Your task to perform on an android device: Is it going to rain this weekend? Image 0: 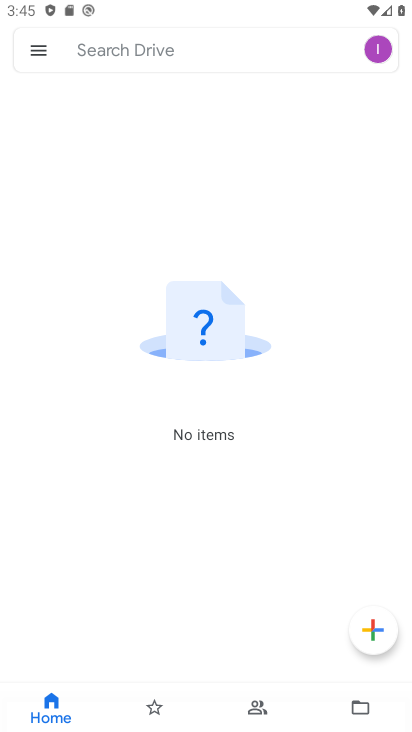
Step 0: press home button
Your task to perform on an android device: Is it going to rain this weekend? Image 1: 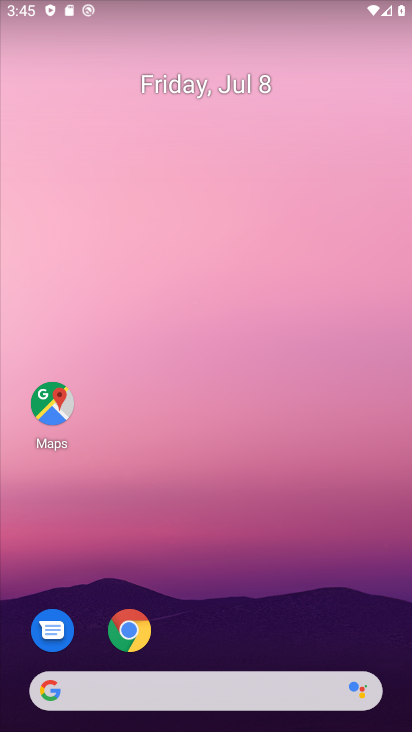
Step 1: drag from (76, 585) to (174, 204)
Your task to perform on an android device: Is it going to rain this weekend? Image 2: 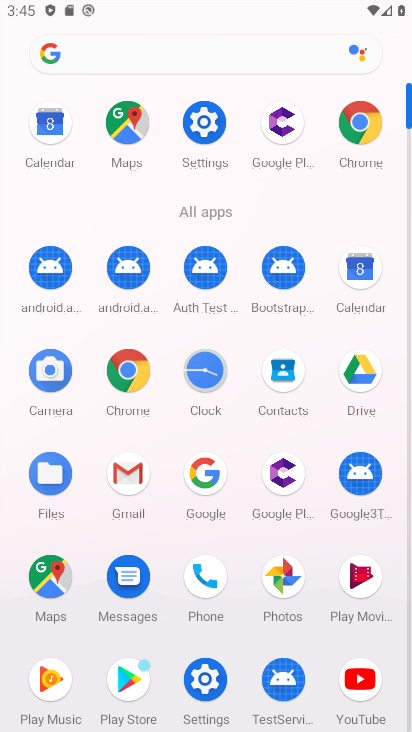
Step 2: click (99, 56)
Your task to perform on an android device: Is it going to rain this weekend? Image 3: 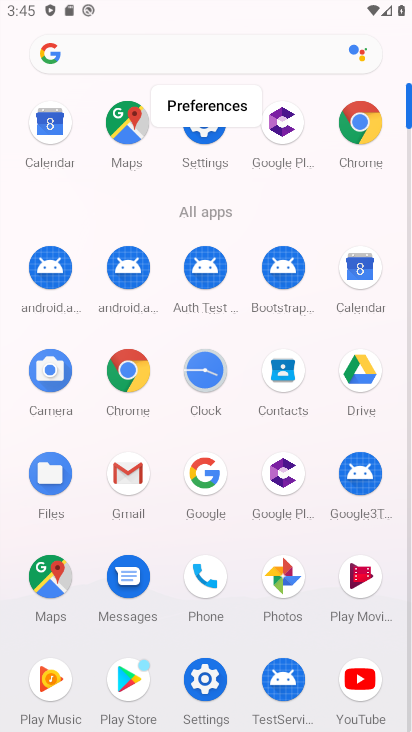
Step 3: click (109, 46)
Your task to perform on an android device: Is it going to rain this weekend? Image 4: 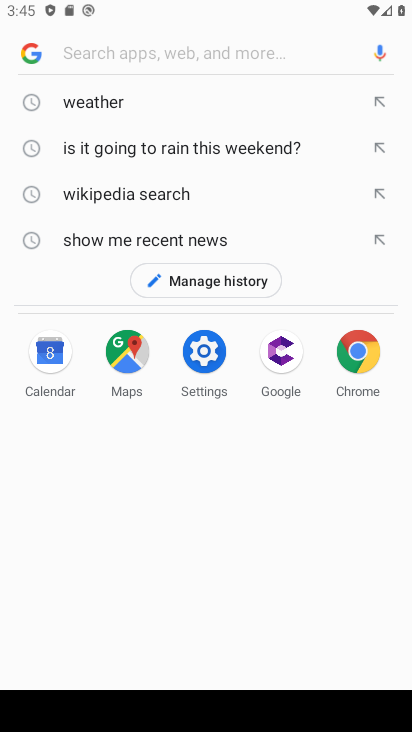
Step 4: type "Is it going to rain this weekend?"
Your task to perform on an android device: Is it going to rain this weekend? Image 5: 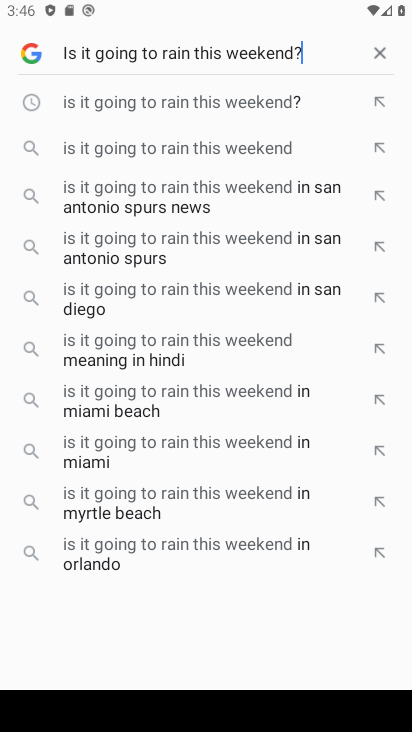
Step 5: type ""
Your task to perform on an android device: Is it going to rain this weekend? Image 6: 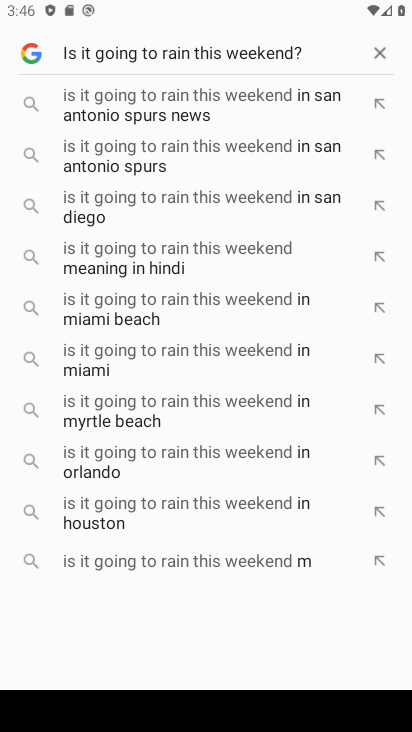
Step 6: task complete